Your task to perform on an android device: toggle airplane mode Image 0: 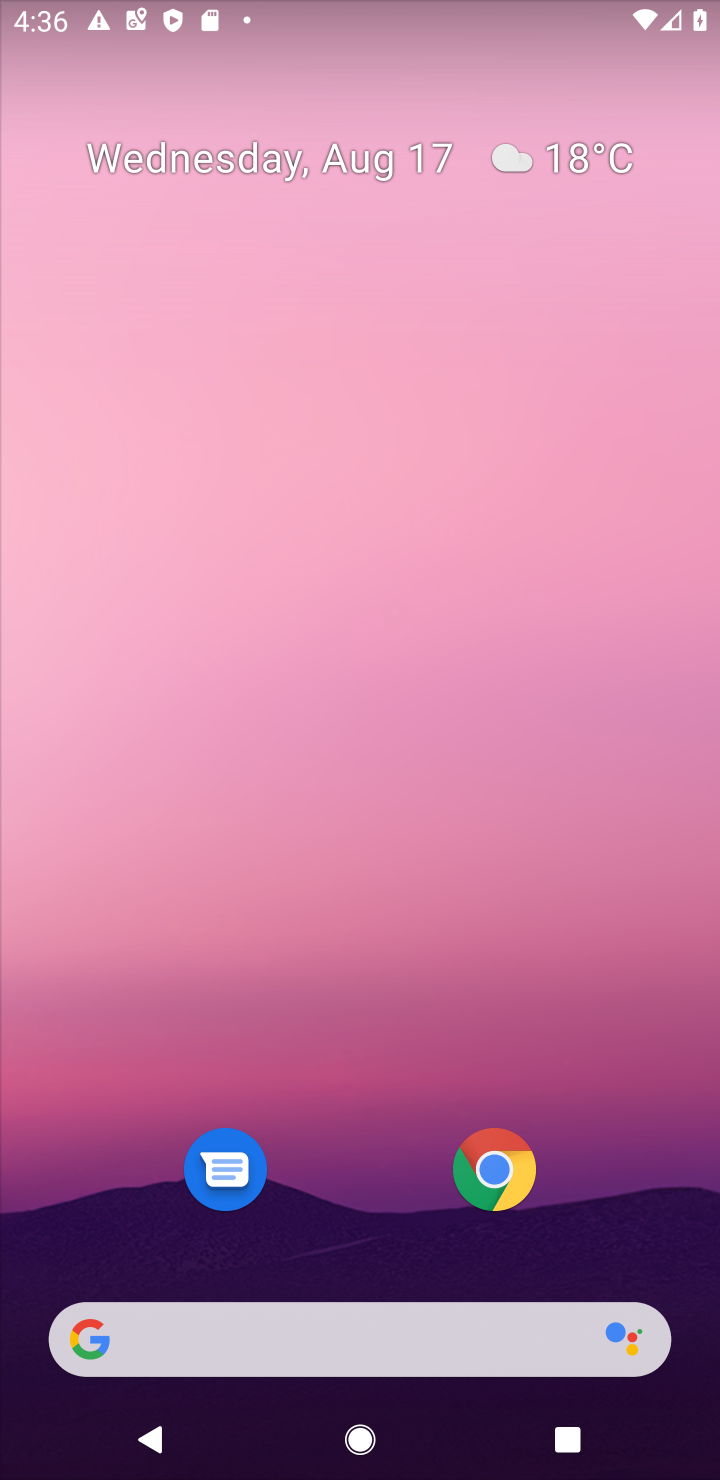
Step 0: drag from (303, 434) to (340, 157)
Your task to perform on an android device: toggle airplane mode Image 1: 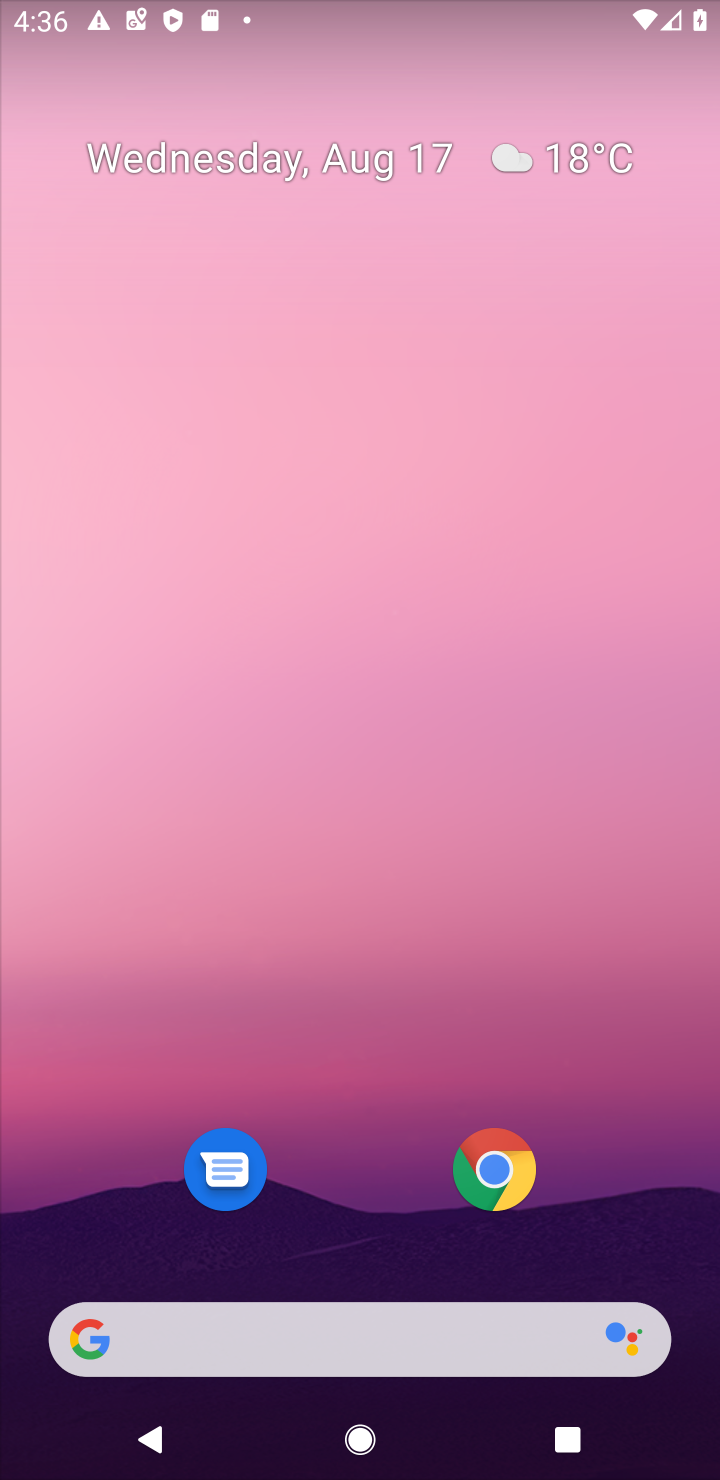
Step 1: drag from (370, 1220) to (425, 57)
Your task to perform on an android device: toggle airplane mode Image 2: 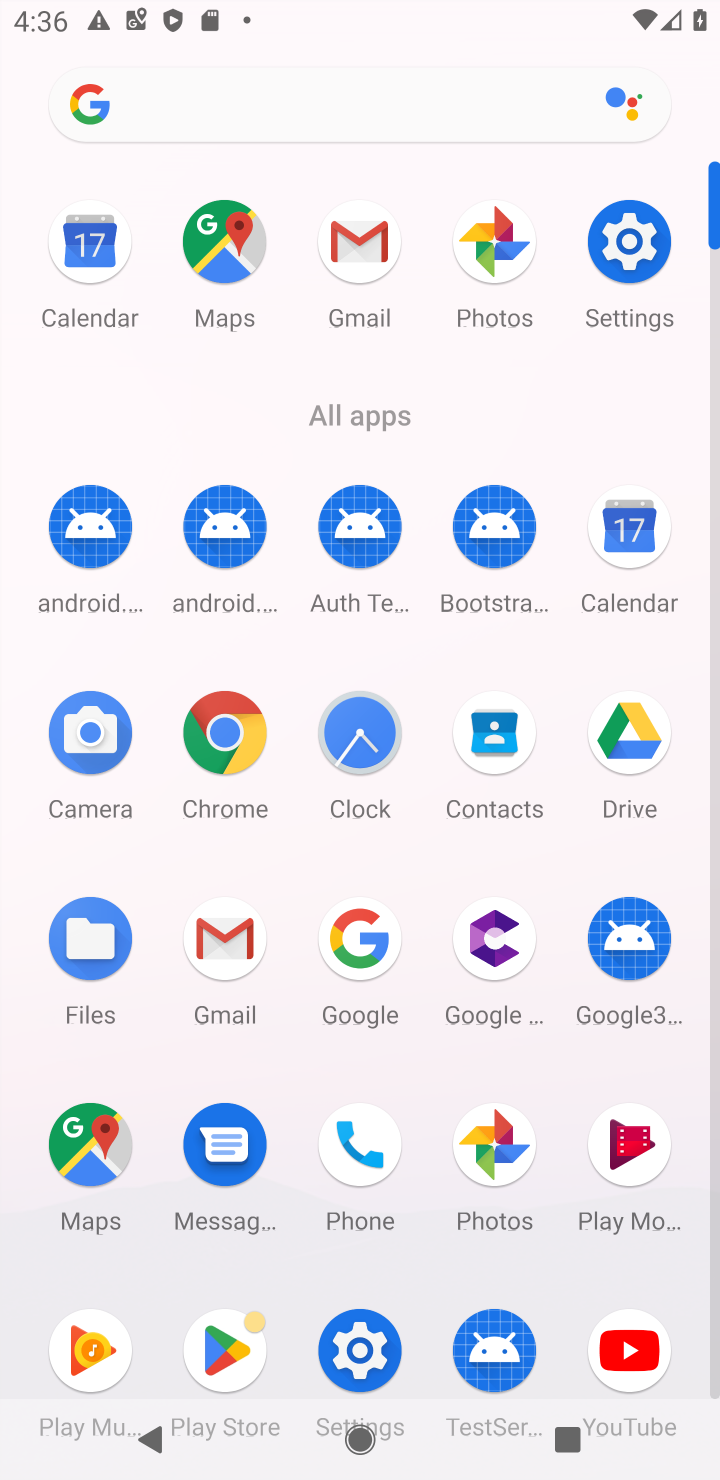
Step 2: click (631, 254)
Your task to perform on an android device: toggle airplane mode Image 3: 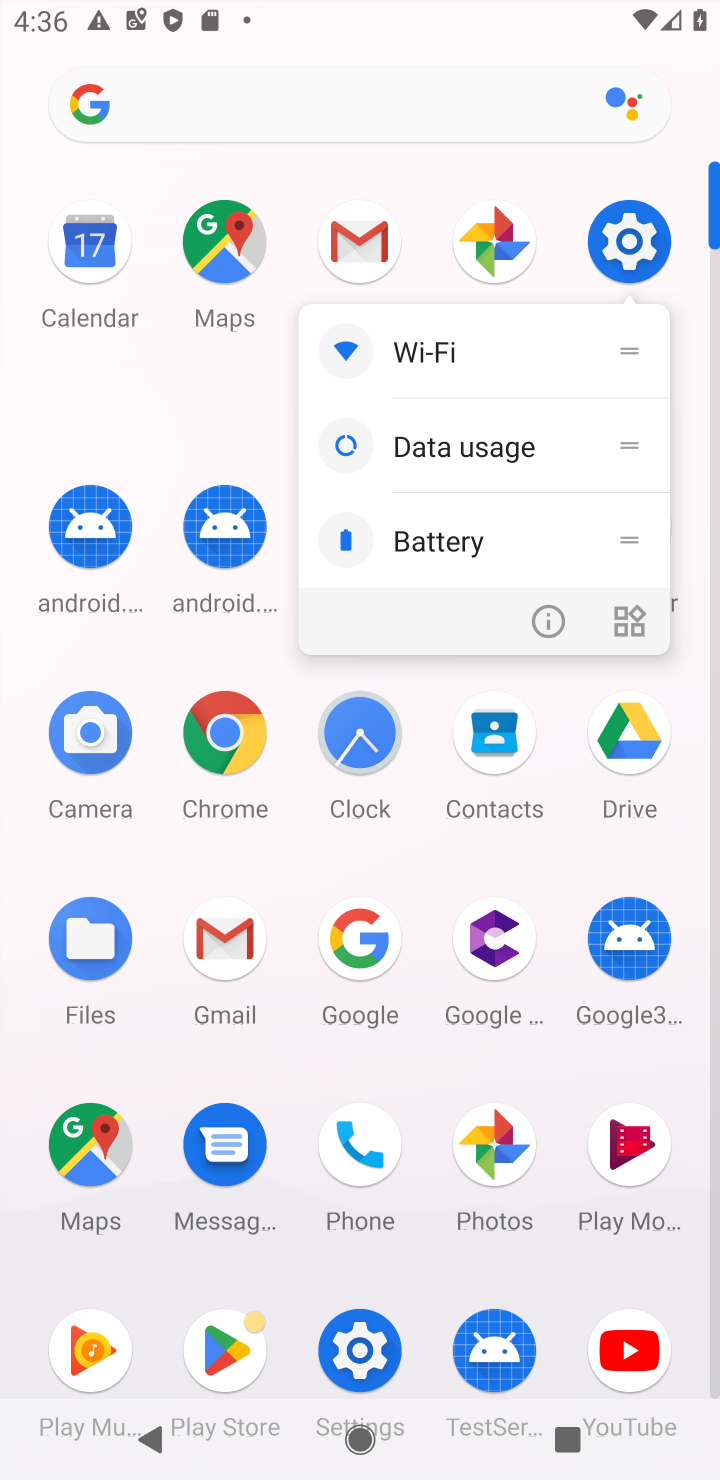
Step 3: click (631, 254)
Your task to perform on an android device: toggle airplane mode Image 4: 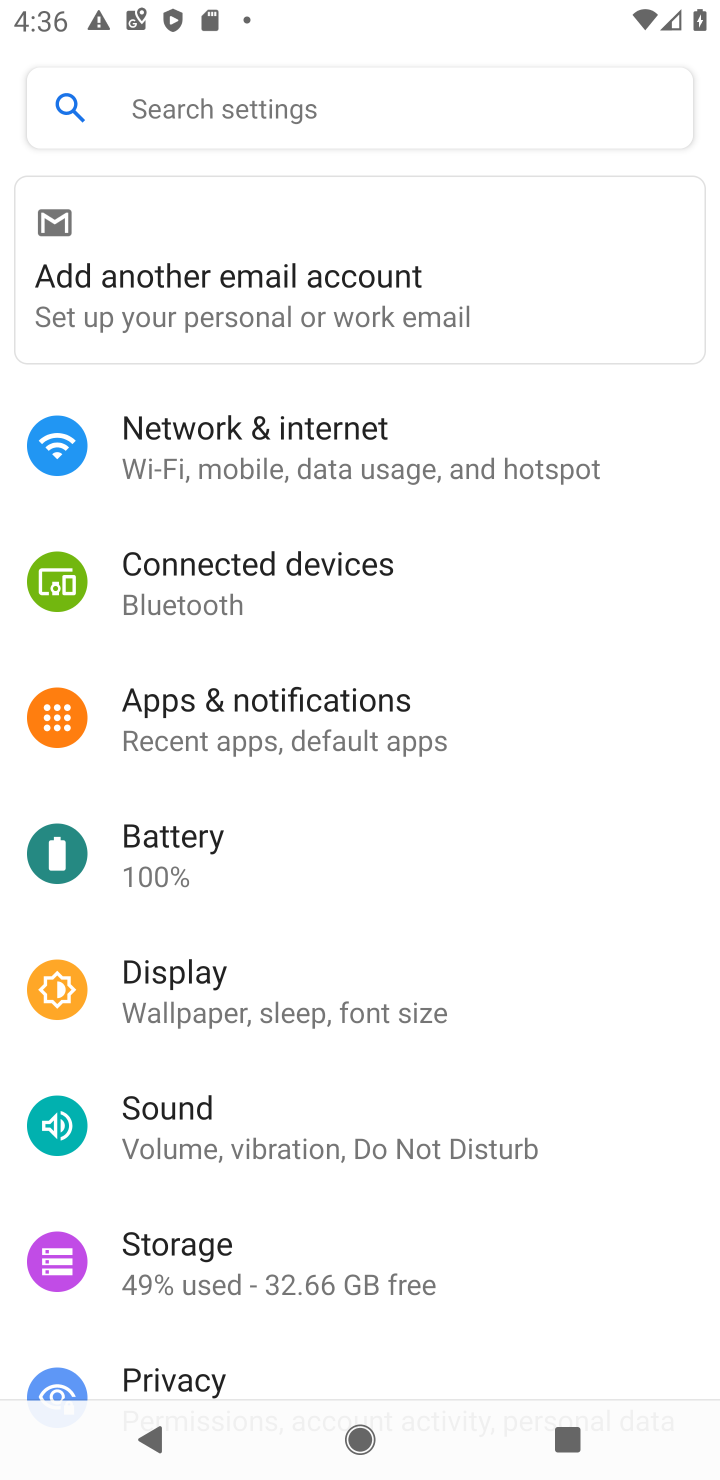
Step 4: click (264, 469)
Your task to perform on an android device: toggle airplane mode Image 5: 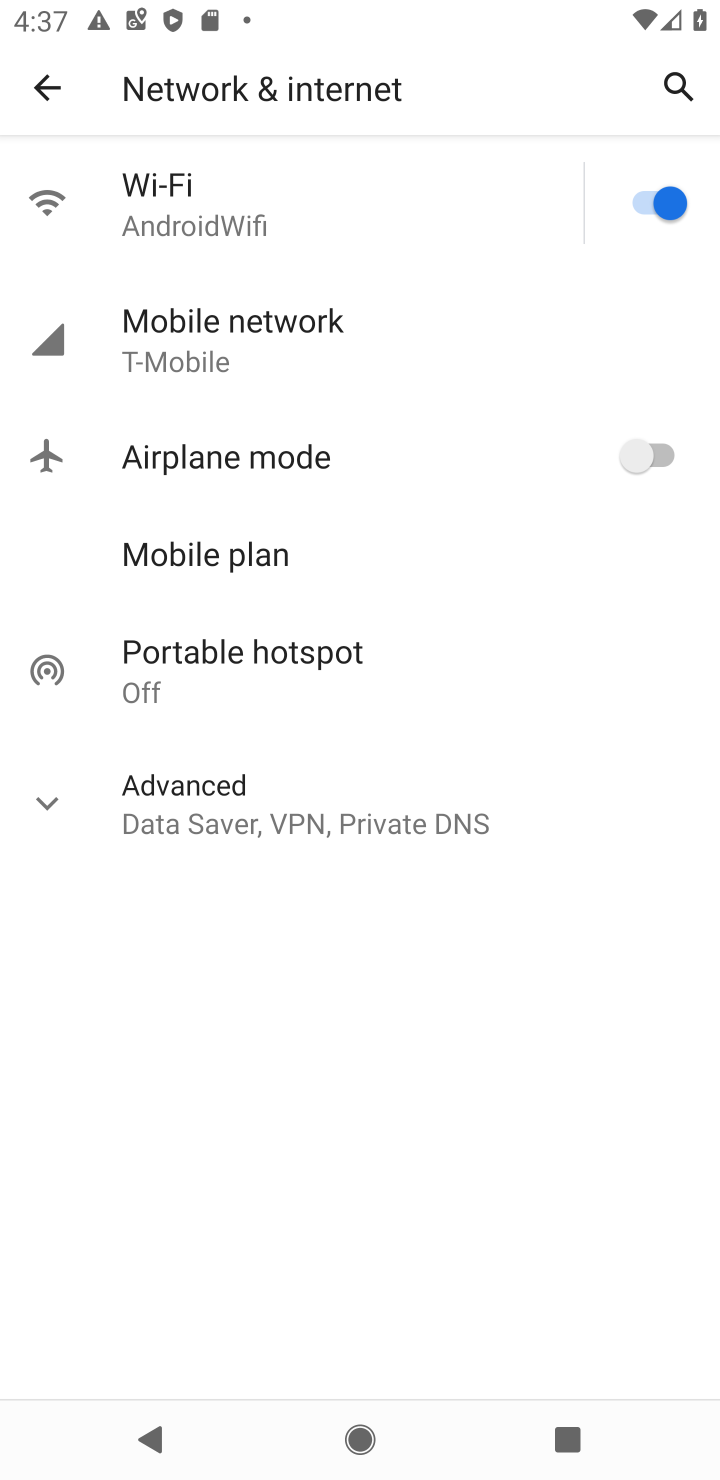
Step 5: click (673, 452)
Your task to perform on an android device: toggle airplane mode Image 6: 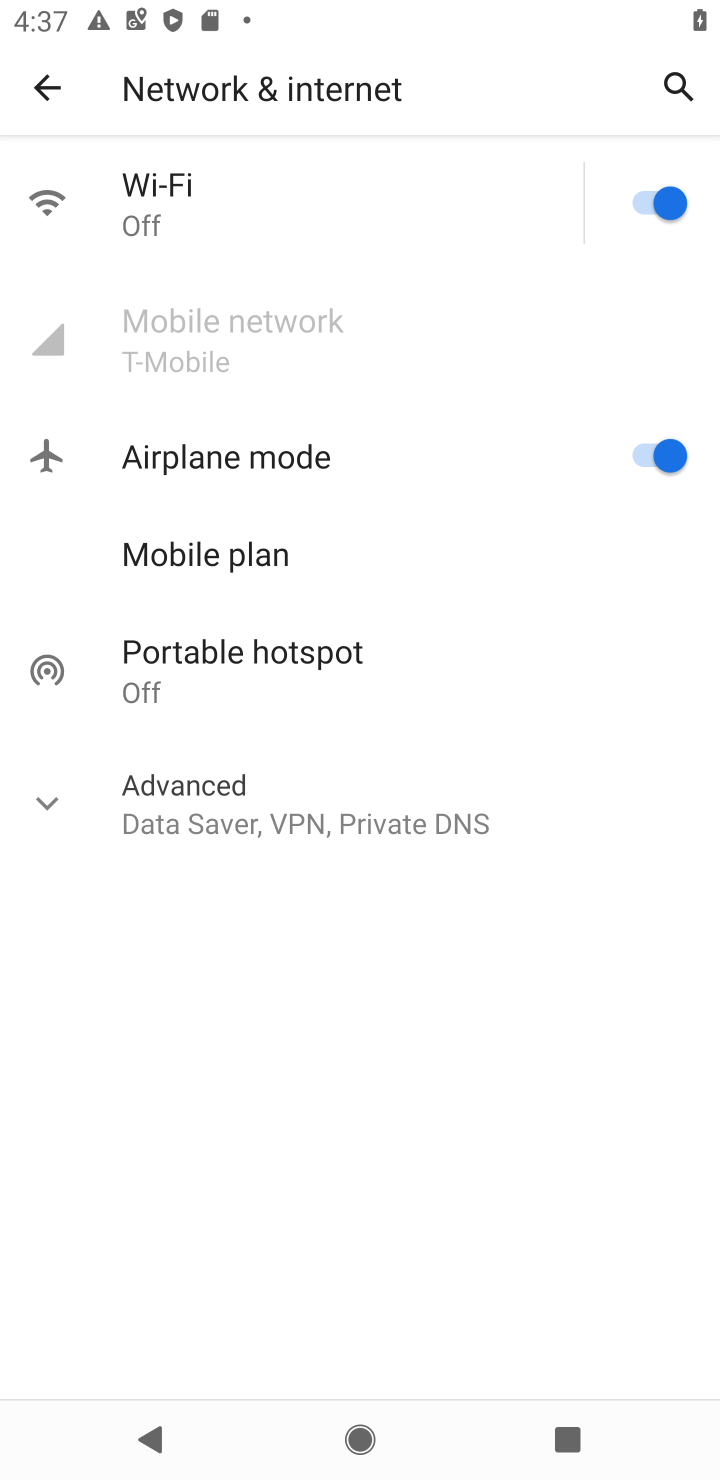
Step 6: task complete